Your task to perform on an android device: Open Google Chrome and click the shortcut for Amazon.com Image 0: 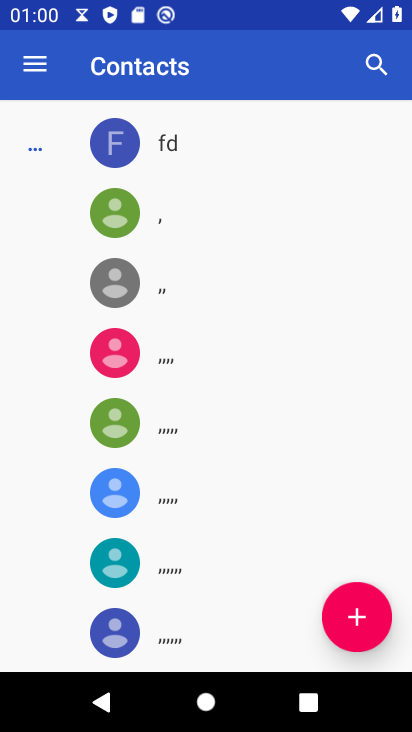
Step 0: press home button
Your task to perform on an android device: Open Google Chrome and click the shortcut for Amazon.com Image 1: 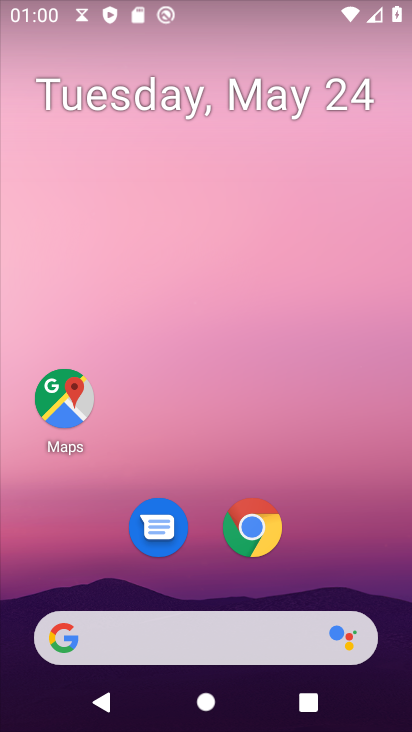
Step 1: click (260, 530)
Your task to perform on an android device: Open Google Chrome and click the shortcut for Amazon.com Image 2: 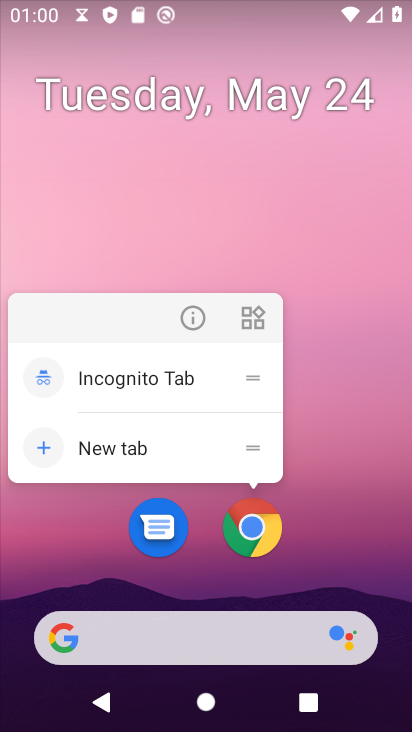
Step 2: click (253, 540)
Your task to perform on an android device: Open Google Chrome and click the shortcut for Amazon.com Image 3: 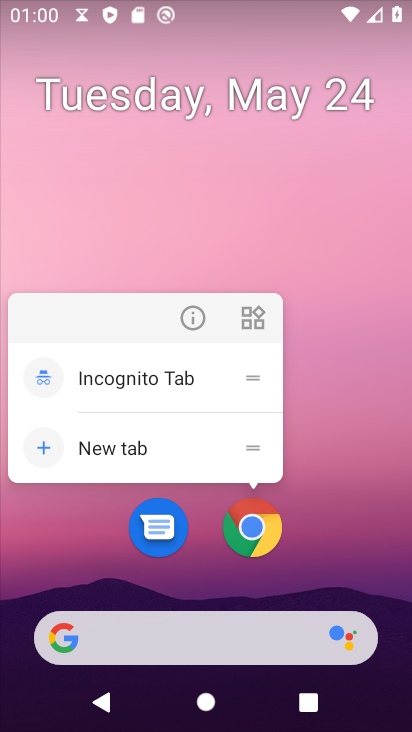
Step 3: click (253, 541)
Your task to perform on an android device: Open Google Chrome and click the shortcut for Amazon.com Image 4: 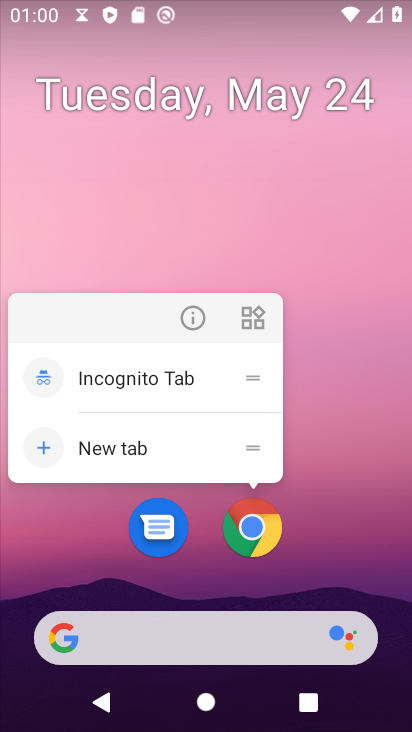
Step 4: click (253, 540)
Your task to perform on an android device: Open Google Chrome and click the shortcut for Amazon.com Image 5: 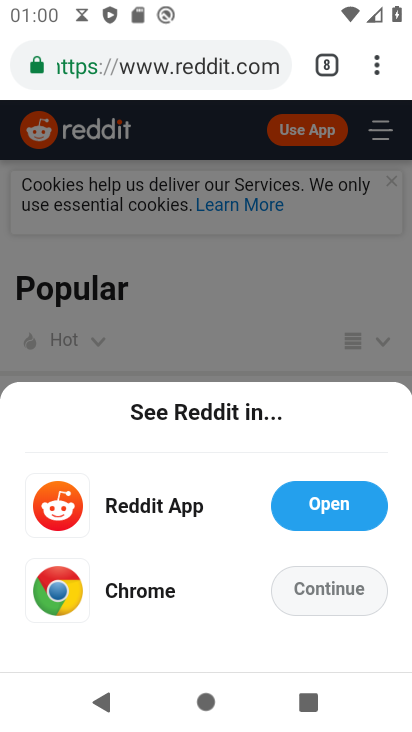
Step 5: drag from (374, 74) to (282, 139)
Your task to perform on an android device: Open Google Chrome and click the shortcut for Amazon.com Image 6: 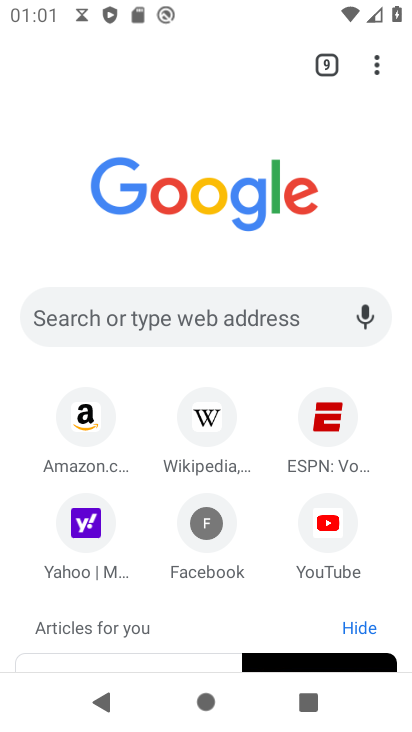
Step 6: click (95, 414)
Your task to perform on an android device: Open Google Chrome and click the shortcut for Amazon.com Image 7: 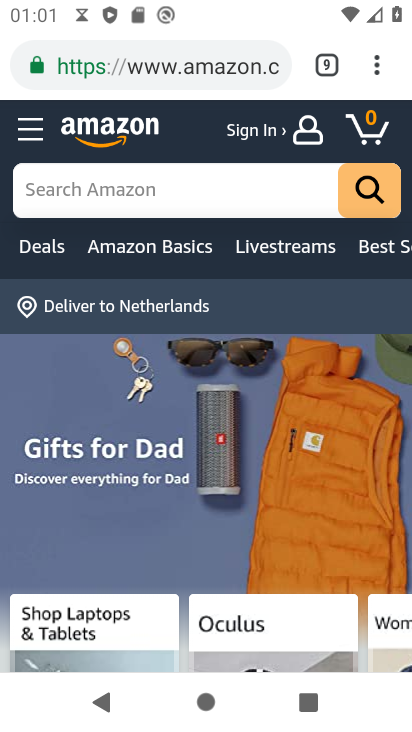
Step 7: task complete